Your task to perform on an android device: Go to Wikipedia Image 0: 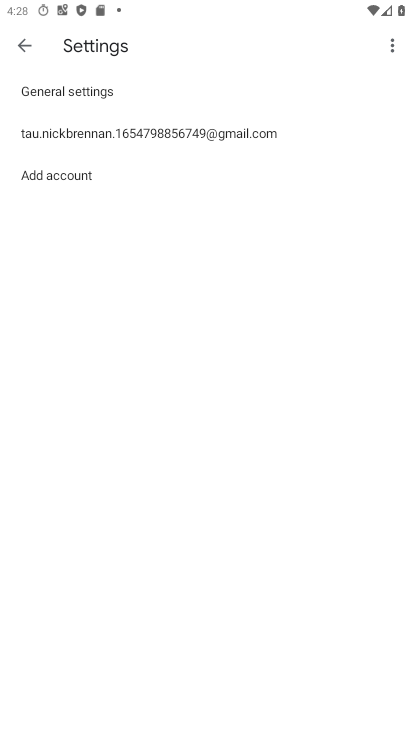
Step 0: press home button
Your task to perform on an android device: Go to Wikipedia Image 1: 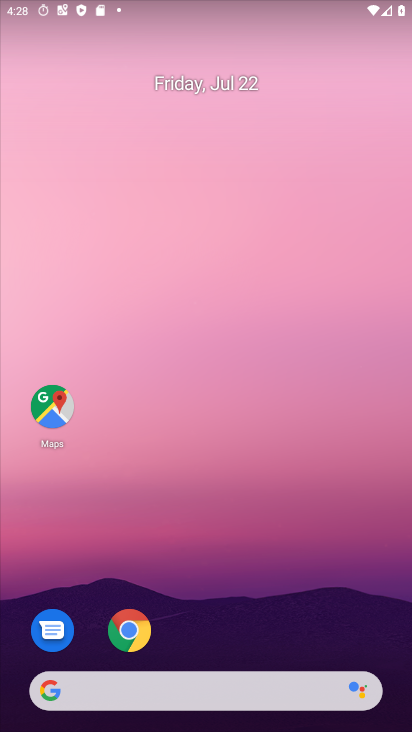
Step 1: drag from (298, 625) to (281, 0)
Your task to perform on an android device: Go to Wikipedia Image 2: 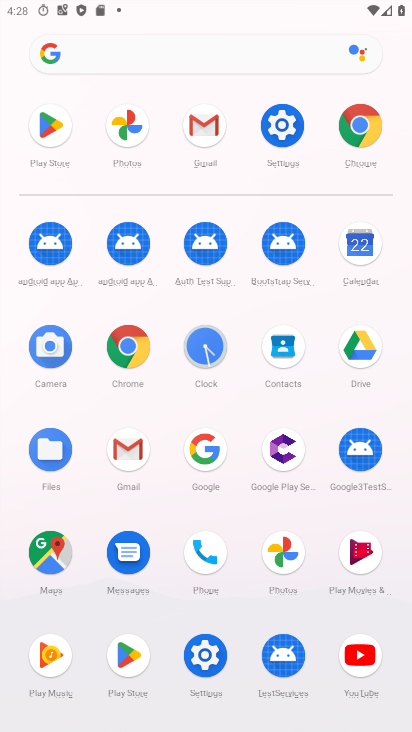
Step 2: click (129, 345)
Your task to perform on an android device: Go to Wikipedia Image 3: 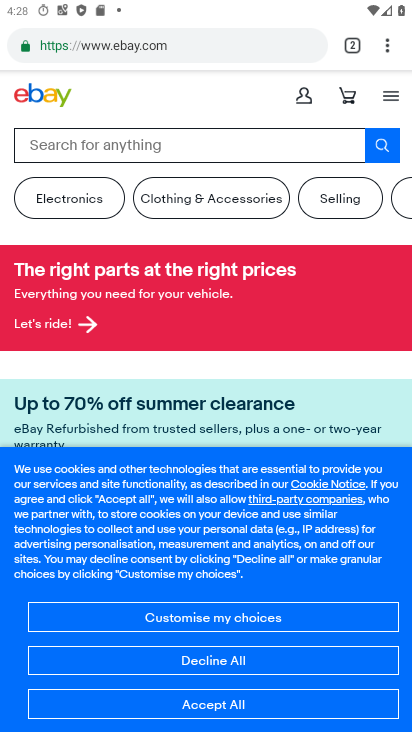
Step 3: drag from (384, 52) to (270, 95)
Your task to perform on an android device: Go to Wikipedia Image 4: 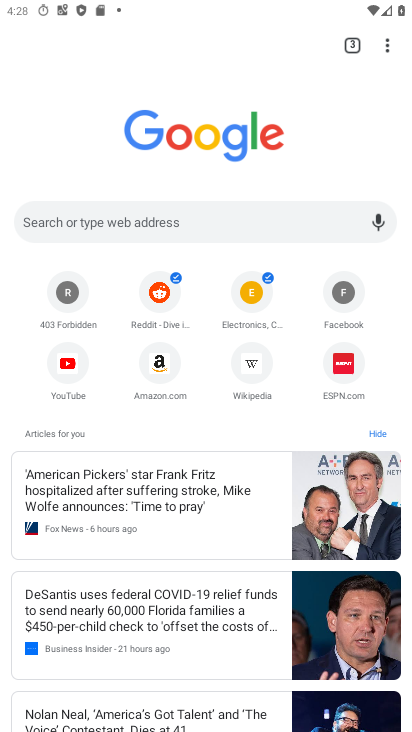
Step 4: click (257, 363)
Your task to perform on an android device: Go to Wikipedia Image 5: 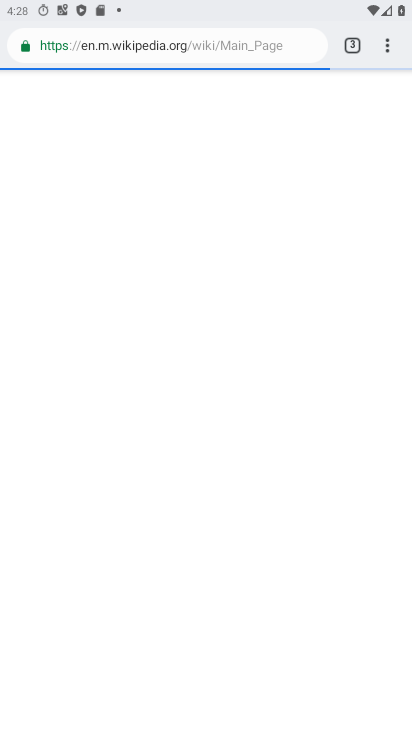
Step 5: task complete